Your task to perform on an android device: Open Chrome and go to settings Image 0: 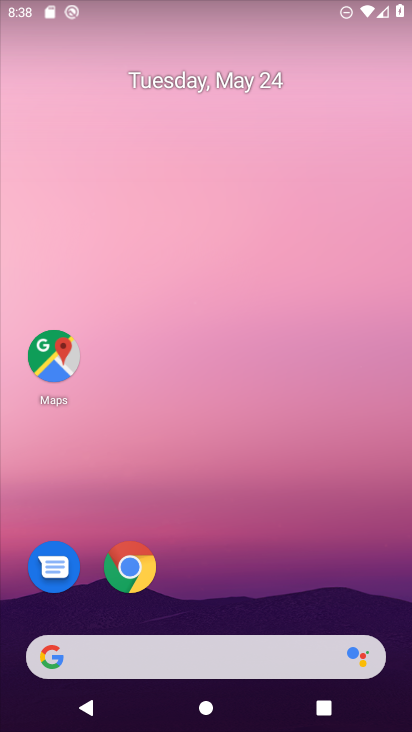
Step 0: press home button
Your task to perform on an android device: Open Chrome and go to settings Image 1: 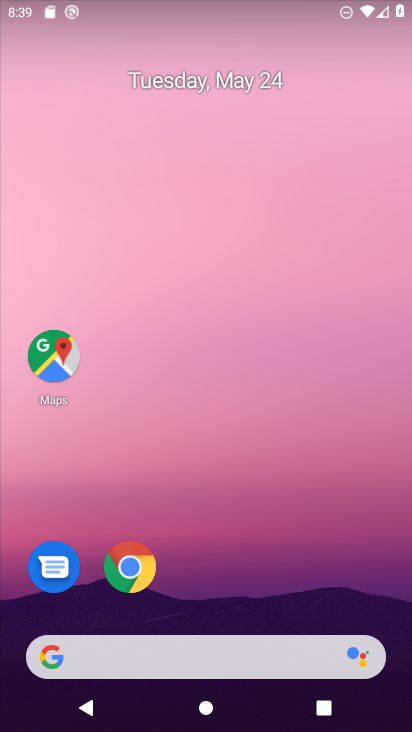
Step 1: click (133, 580)
Your task to perform on an android device: Open Chrome and go to settings Image 2: 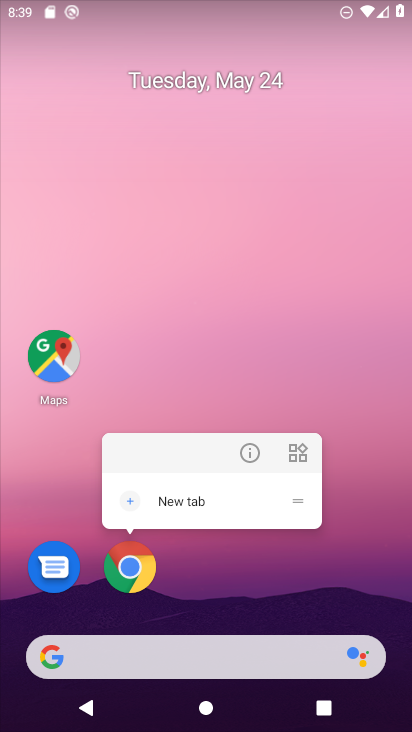
Step 2: click (123, 570)
Your task to perform on an android device: Open Chrome and go to settings Image 3: 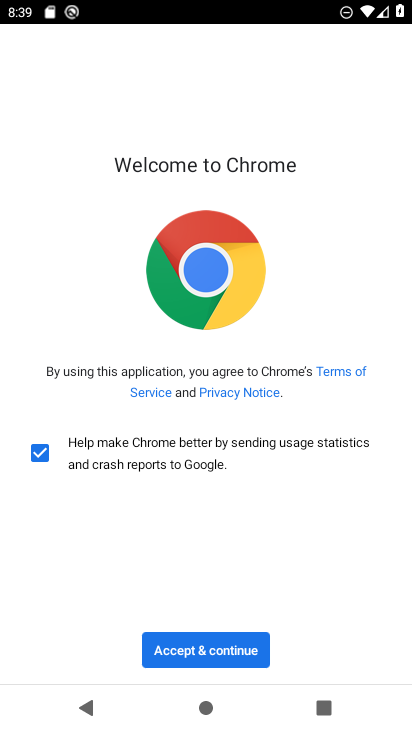
Step 3: click (208, 649)
Your task to perform on an android device: Open Chrome and go to settings Image 4: 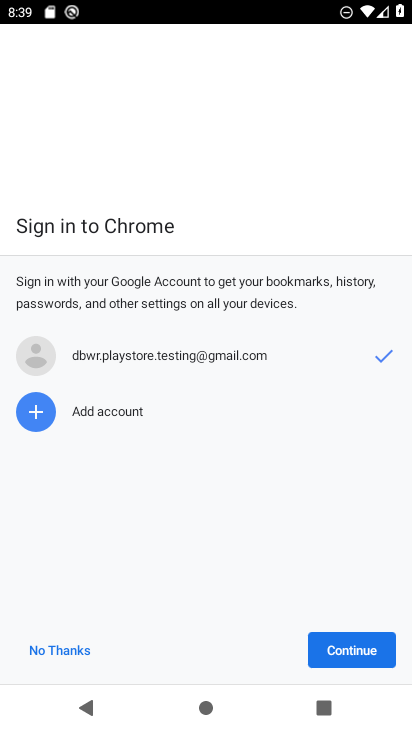
Step 4: click (335, 650)
Your task to perform on an android device: Open Chrome and go to settings Image 5: 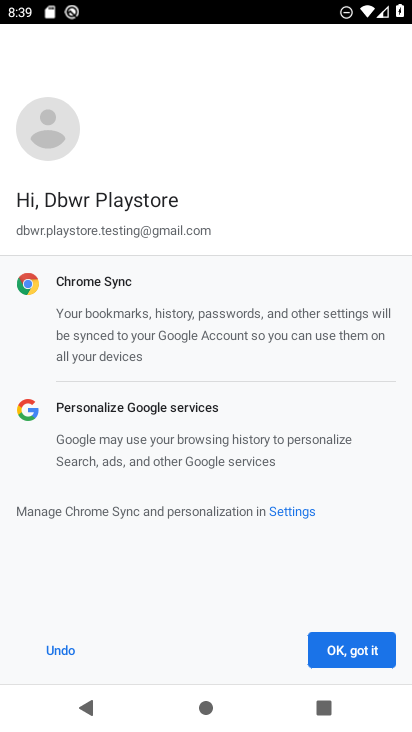
Step 5: click (335, 650)
Your task to perform on an android device: Open Chrome and go to settings Image 6: 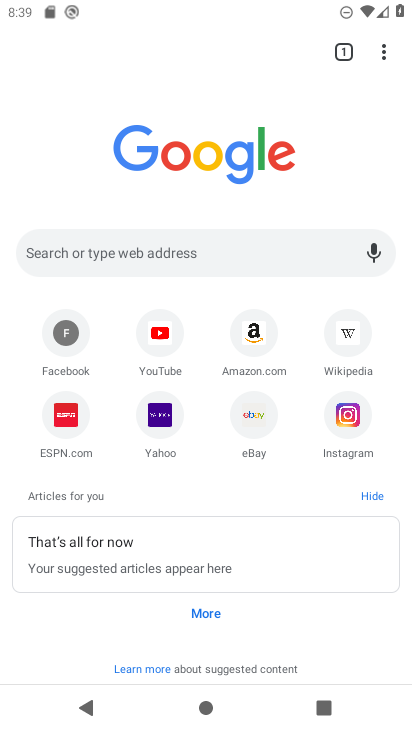
Step 6: task complete